Your task to perform on an android device: How do I get to the nearest Burger King? Image 0: 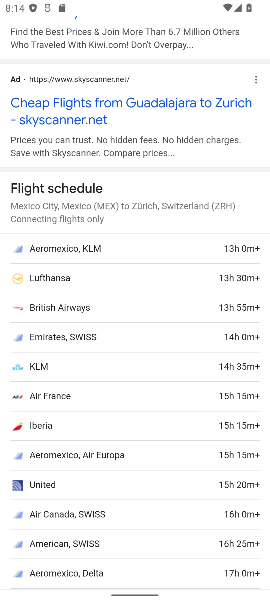
Step 0: press home button
Your task to perform on an android device: How do I get to the nearest Burger King? Image 1: 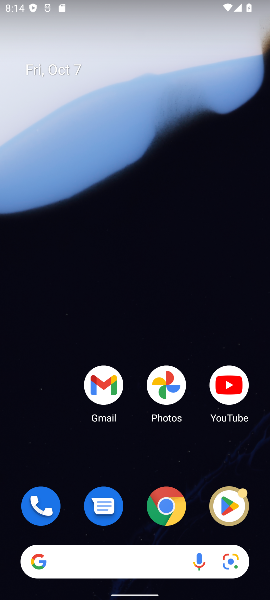
Step 1: click (168, 509)
Your task to perform on an android device: How do I get to the nearest Burger King? Image 2: 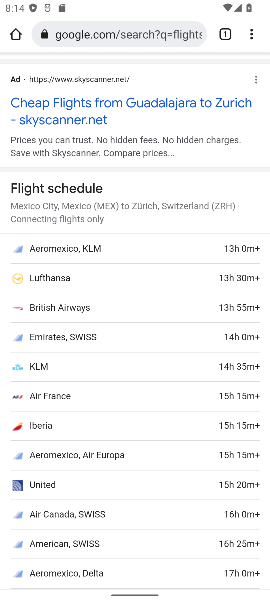
Step 2: drag from (162, 142) to (193, 572)
Your task to perform on an android device: How do I get to the nearest Burger King? Image 3: 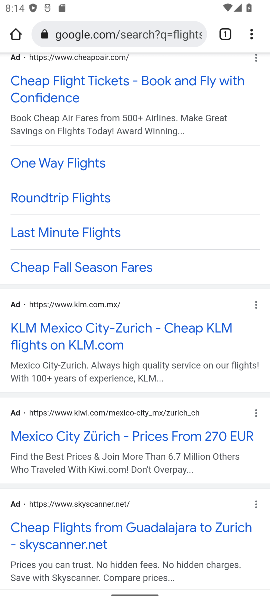
Step 3: drag from (188, 127) to (172, 402)
Your task to perform on an android device: How do I get to the nearest Burger King? Image 4: 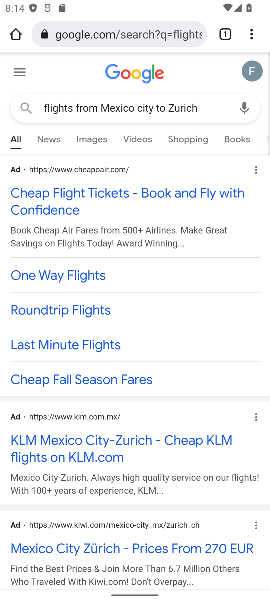
Step 4: click (159, 31)
Your task to perform on an android device: How do I get to the nearest Burger King? Image 5: 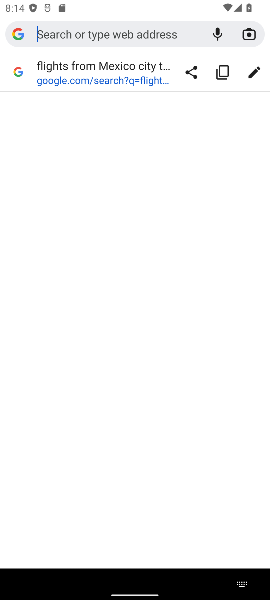
Step 5: type "nearest Burger King"
Your task to perform on an android device: How do I get to the nearest Burger King? Image 6: 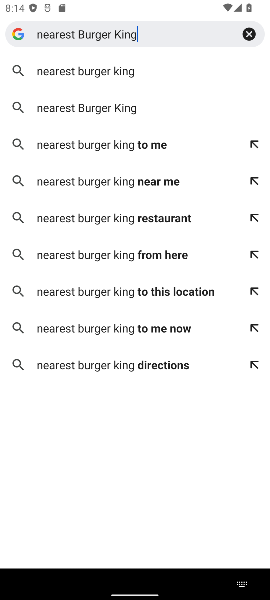
Step 6: click (111, 73)
Your task to perform on an android device: How do I get to the nearest Burger King? Image 7: 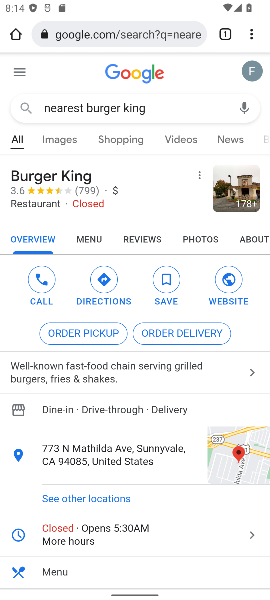
Step 7: task complete